Your task to perform on an android device: change alarm snooze length Image 0: 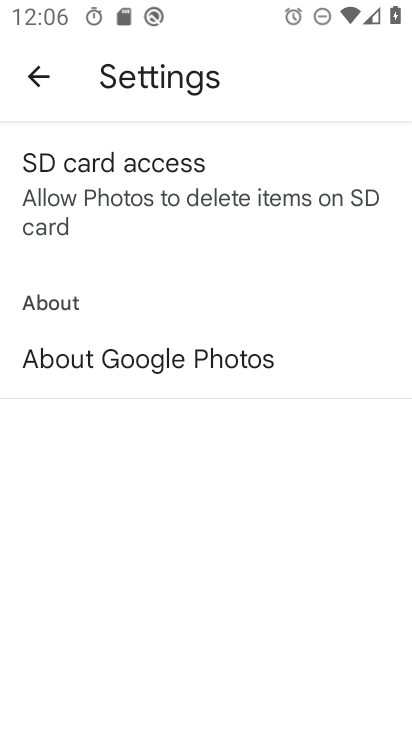
Step 0: click (47, 72)
Your task to perform on an android device: change alarm snooze length Image 1: 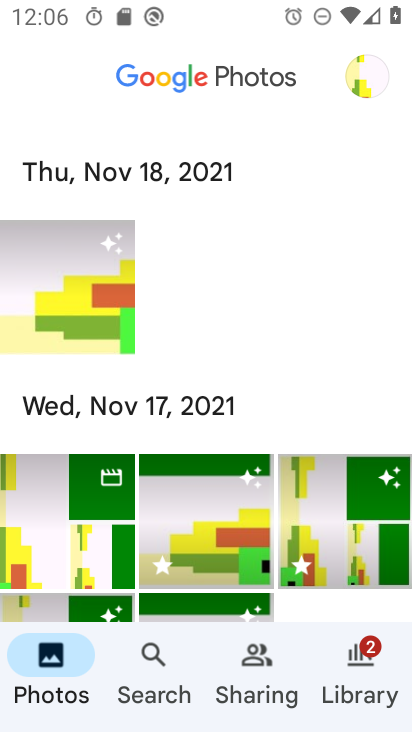
Step 1: press back button
Your task to perform on an android device: change alarm snooze length Image 2: 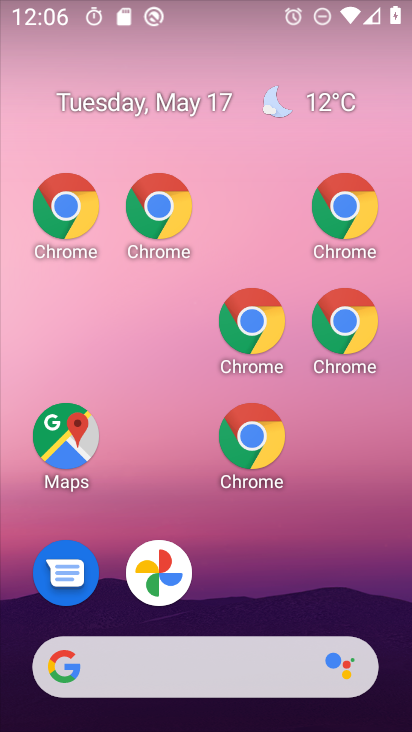
Step 2: drag from (290, 688) to (172, 151)
Your task to perform on an android device: change alarm snooze length Image 3: 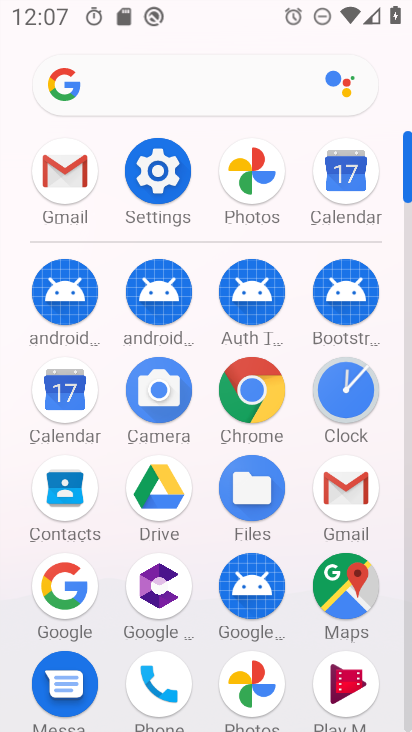
Step 3: click (347, 378)
Your task to perform on an android device: change alarm snooze length Image 4: 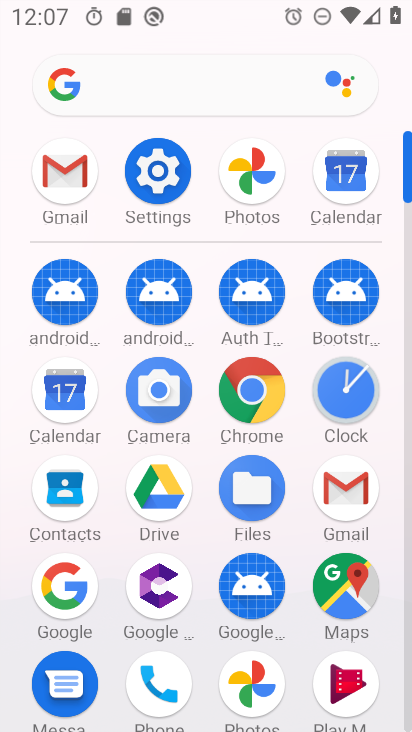
Step 4: click (346, 376)
Your task to perform on an android device: change alarm snooze length Image 5: 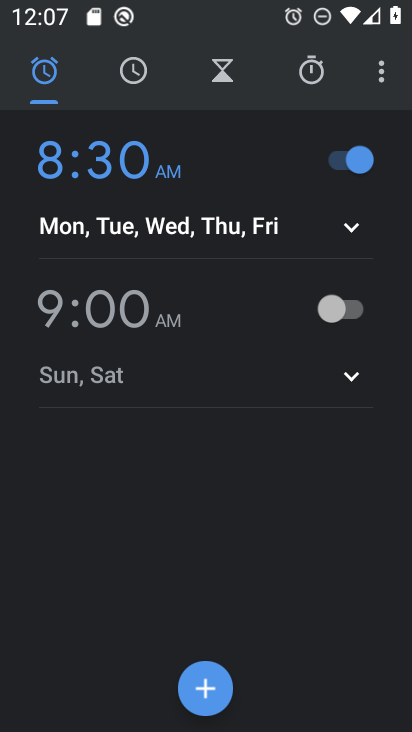
Step 5: click (371, 64)
Your task to perform on an android device: change alarm snooze length Image 6: 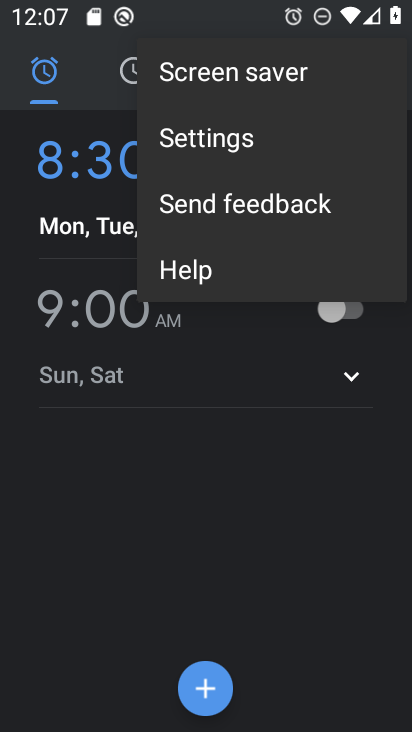
Step 6: click (218, 140)
Your task to perform on an android device: change alarm snooze length Image 7: 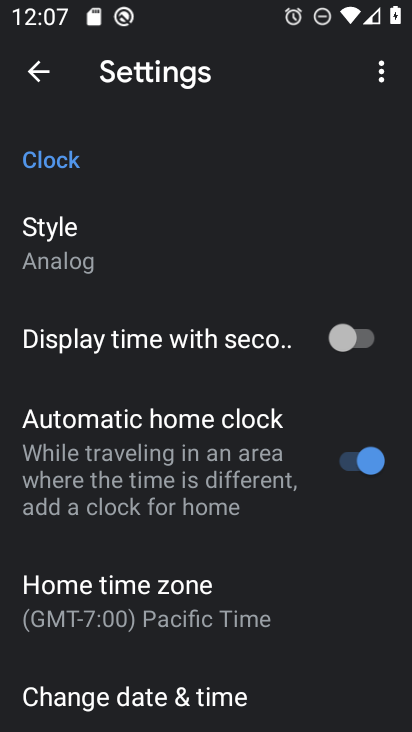
Step 7: drag from (292, 495) to (275, 121)
Your task to perform on an android device: change alarm snooze length Image 8: 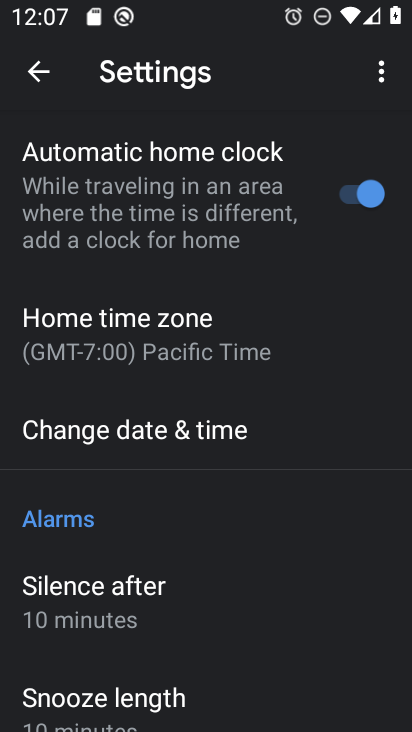
Step 8: drag from (277, 654) to (194, 154)
Your task to perform on an android device: change alarm snooze length Image 9: 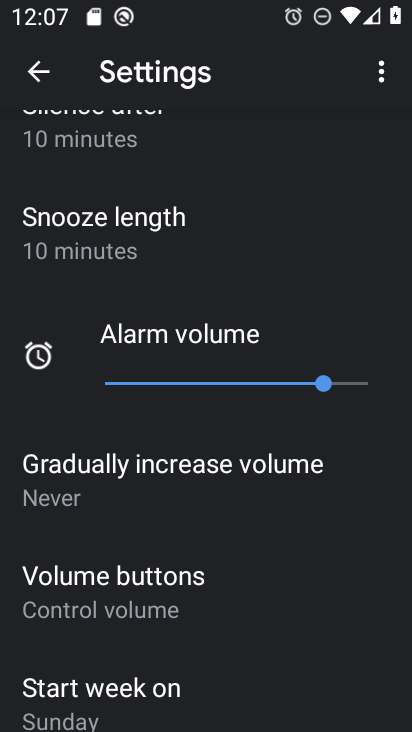
Step 9: click (110, 227)
Your task to perform on an android device: change alarm snooze length Image 10: 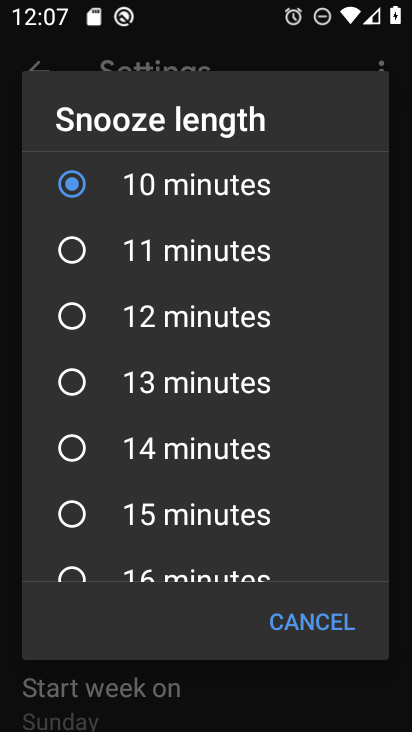
Step 10: click (63, 252)
Your task to perform on an android device: change alarm snooze length Image 11: 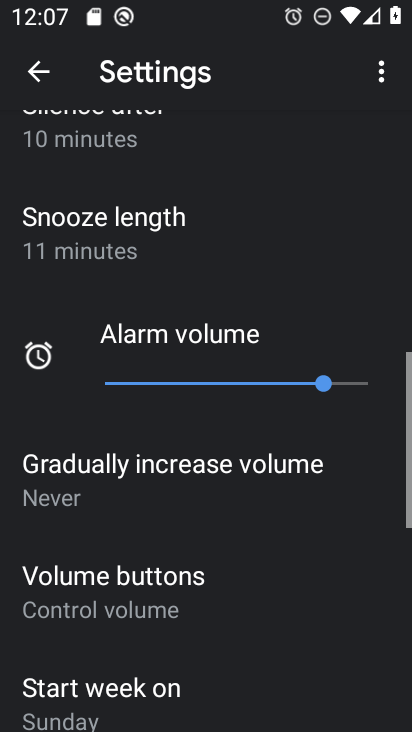
Step 11: click (67, 253)
Your task to perform on an android device: change alarm snooze length Image 12: 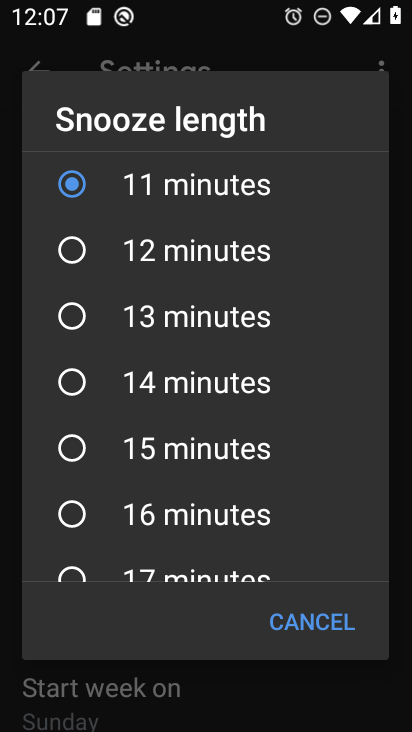
Step 12: task complete